Your task to perform on an android device: Do I have any events today? Image 0: 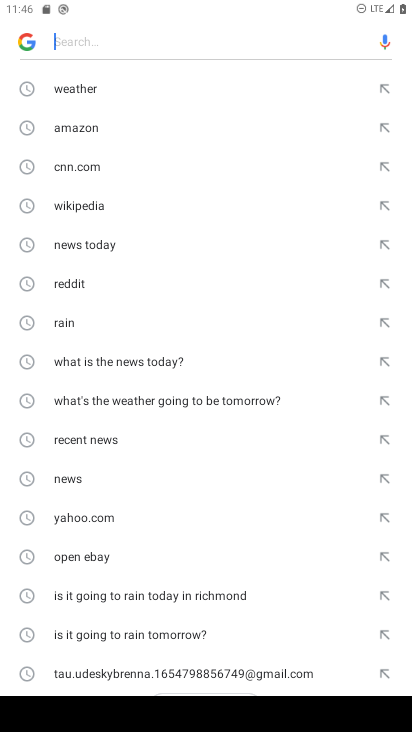
Step 0: press back button
Your task to perform on an android device: Do I have any events today? Image 1: 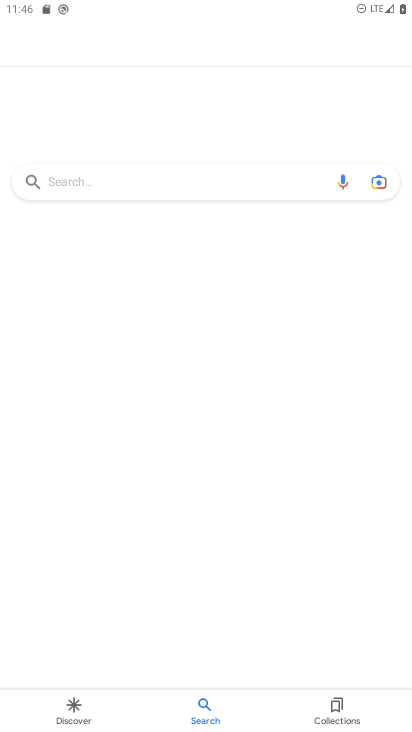
Step 1: press back button
Your task to perform on an android device: Do I have any events today? Image 2: 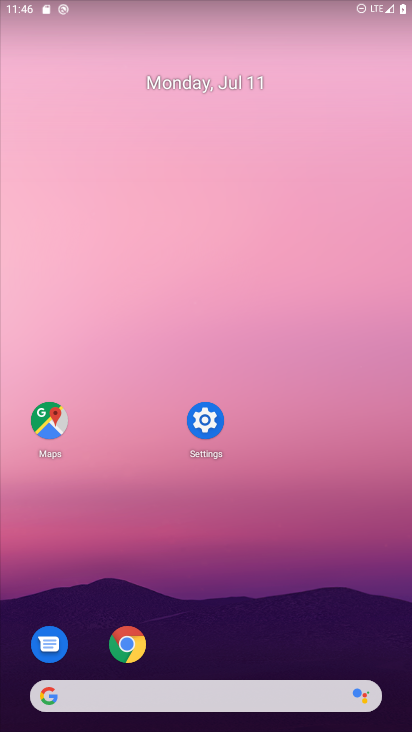
Step 2: drag from (398, 672) to (268, 177)
Your task to perform on an android device: Do I have any events today? Image 3: 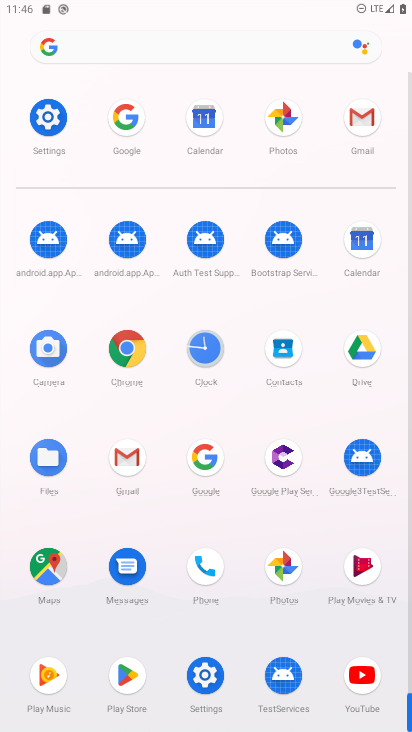
Step 3: click (365, 241)
Your task to perform on an android device: Do I have any events today? Image 4: 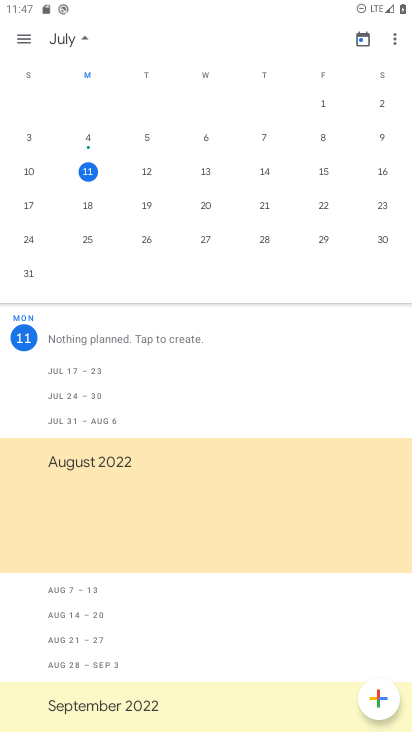
Step 4: click (78, 167)
Your task to perform on an android device: Do I have any events today? Image 5: 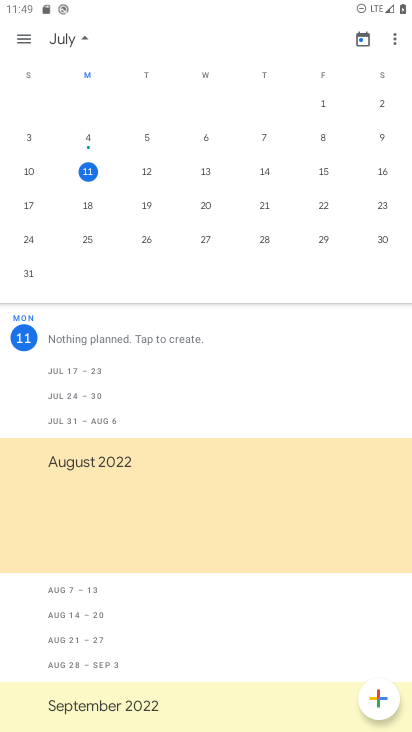
Step 5: task complete